Your task to perform on an android device: check android version Image 0: 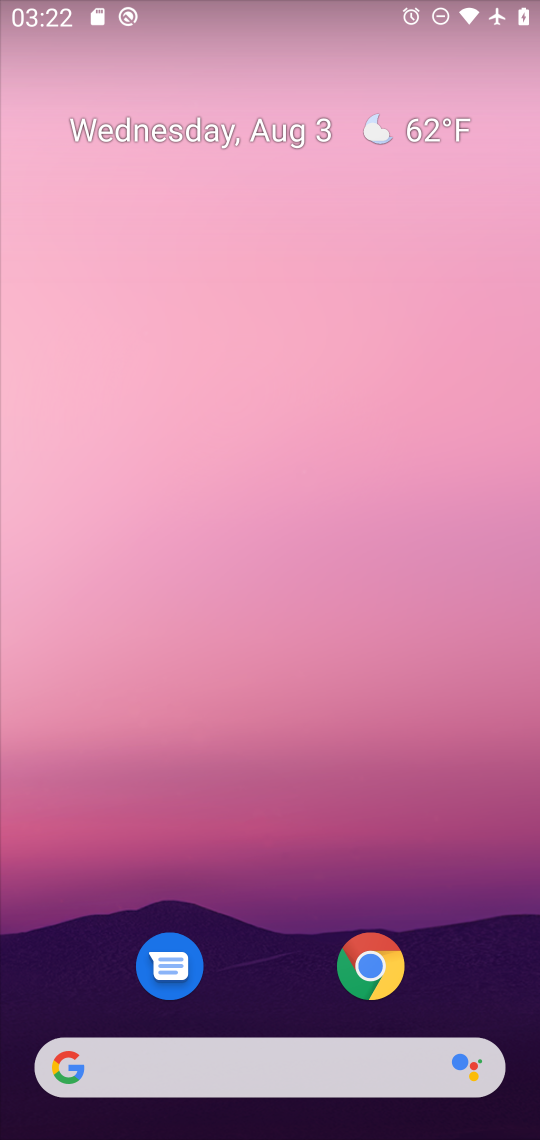
Step 0: drag from (275, 965) to (238, 384)
Your task to perform on an android device: check android version Image 1: 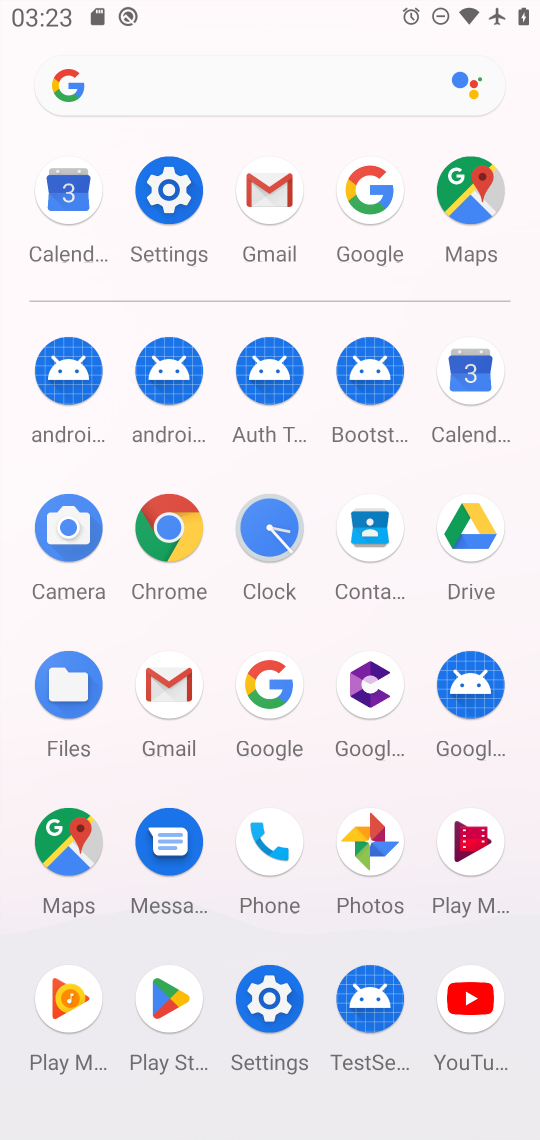
Step 1: click (188, 211)
Your task to perform on an android device: check android version Image 2: 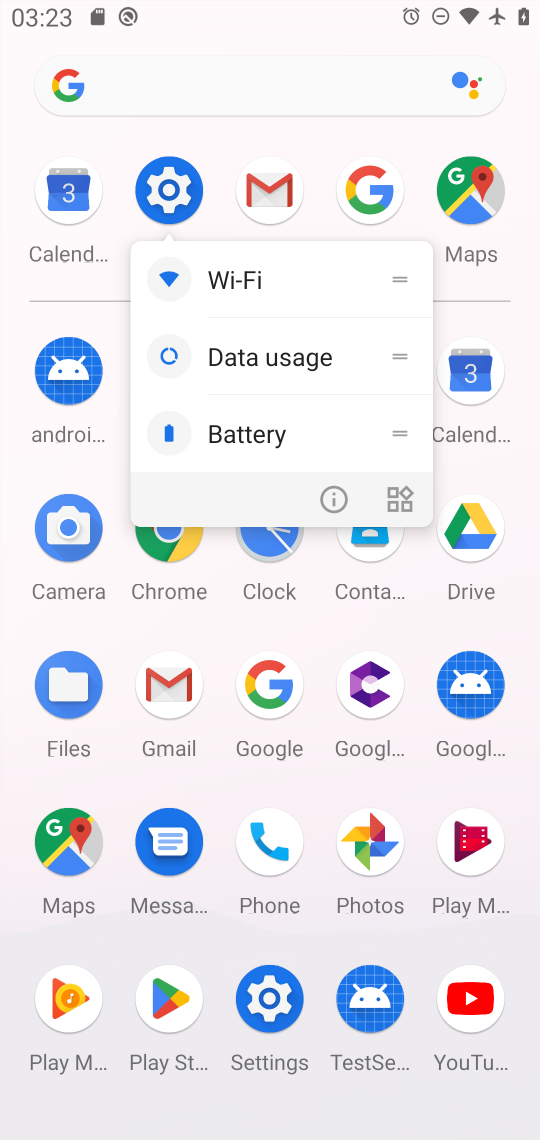
Step 2: click (188, 211)
Your task to perform on an android device: check android version Image 3: 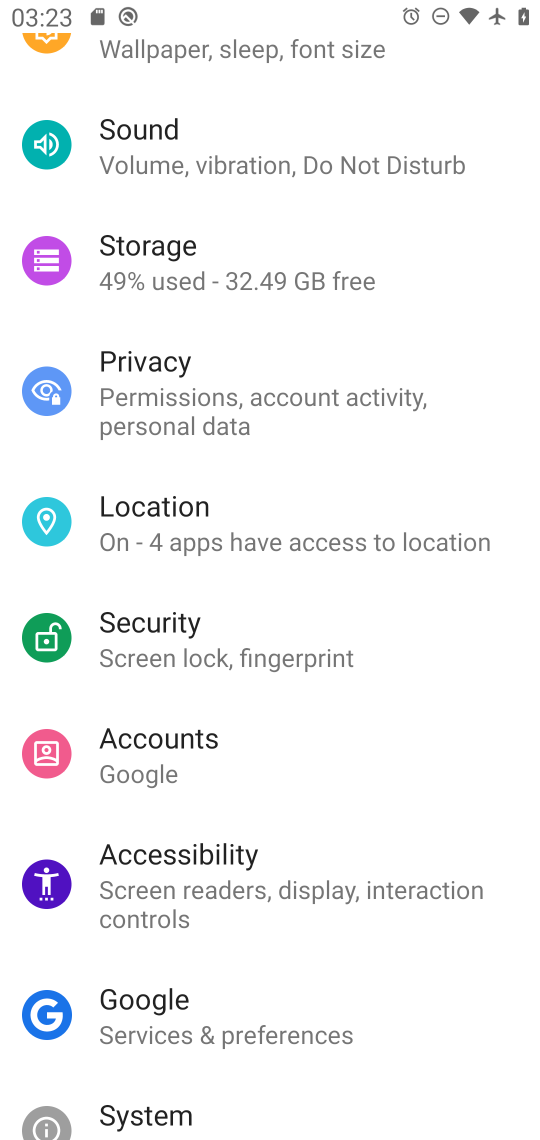
Step 3: drag from (365, 1050) to (319, 502)
Your task to perform on an android device: check android version Image 4: 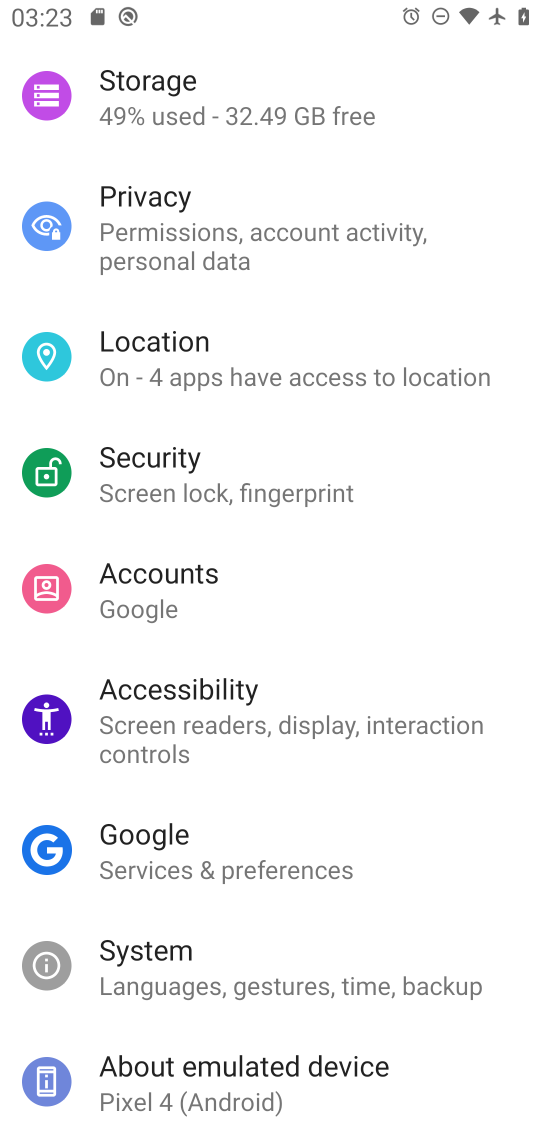
Step 4: drag from (297, 1073) to (257, 777)
Your task to perform on an android device: check android version Image 5: 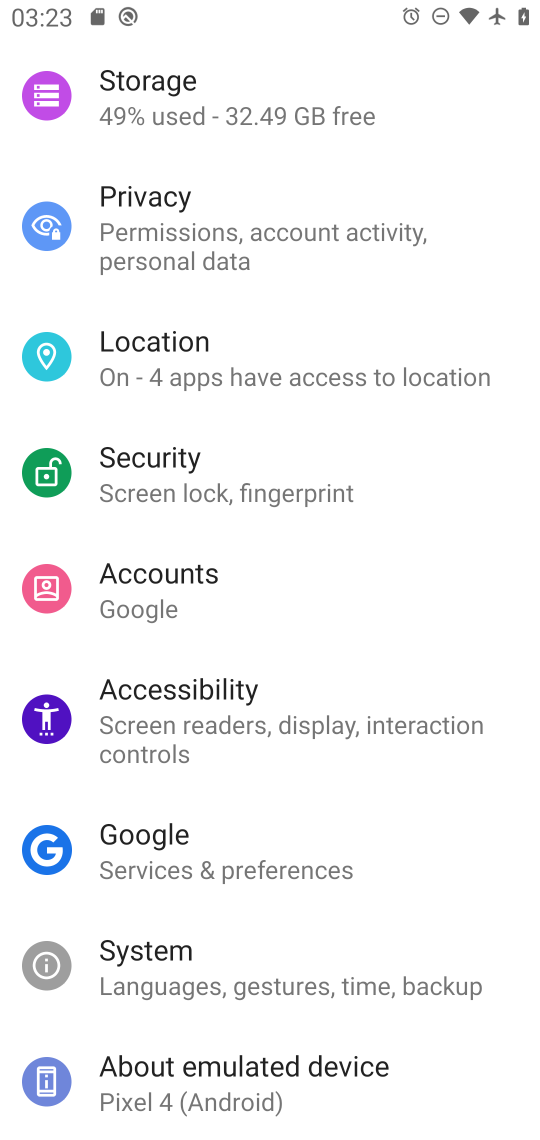
Step 5: click (231, 1074)
Your task to perform on an android device: check android version Image 6: 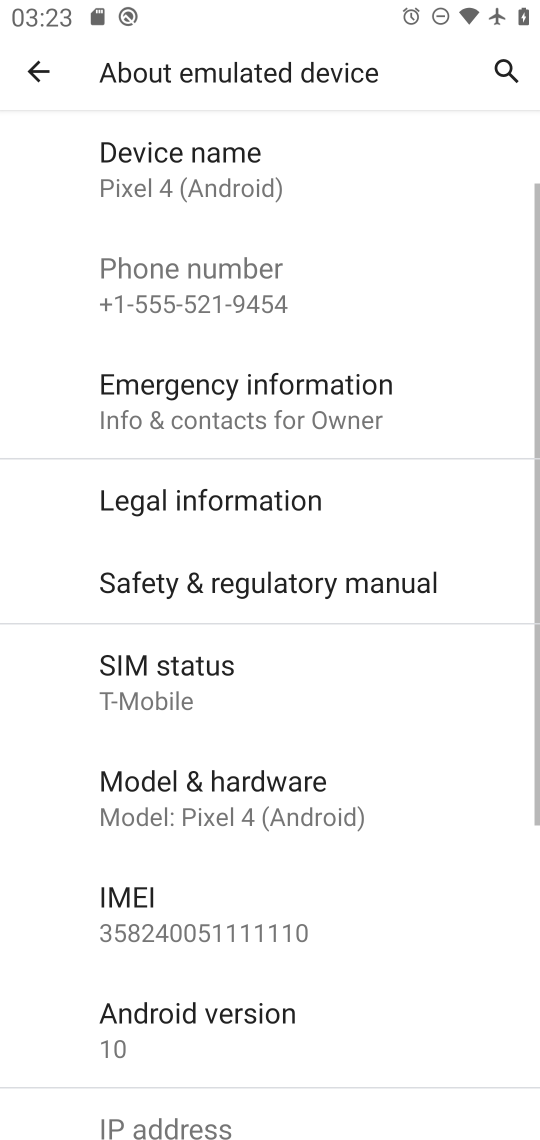
Step 6: click (258, 1024)
Your task to perform on an android device: check android version Image 7: 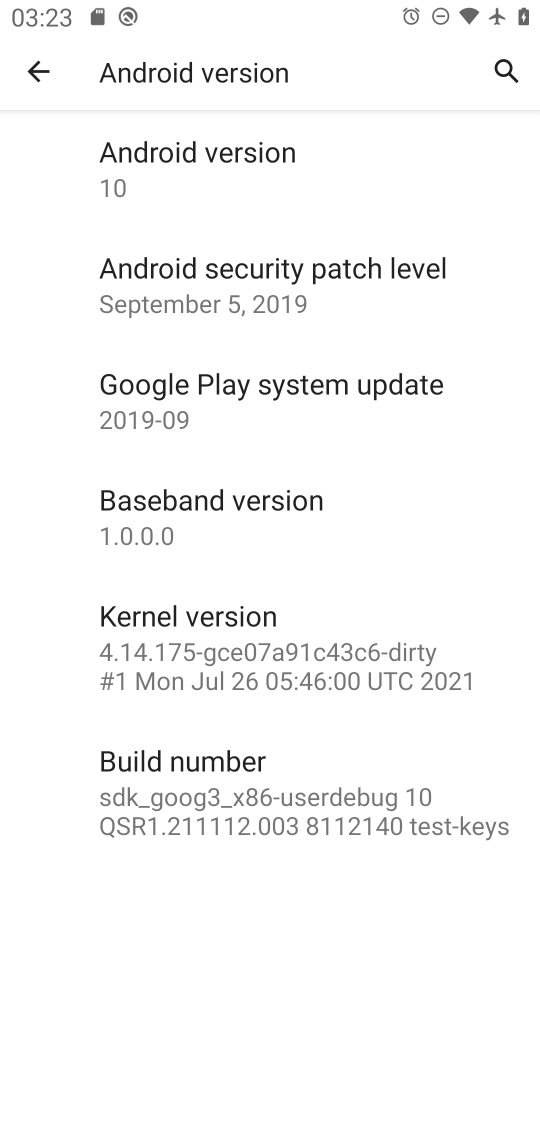
Step 7: click (197, 183)
Your task to perform on an android device: check android version Image 8: 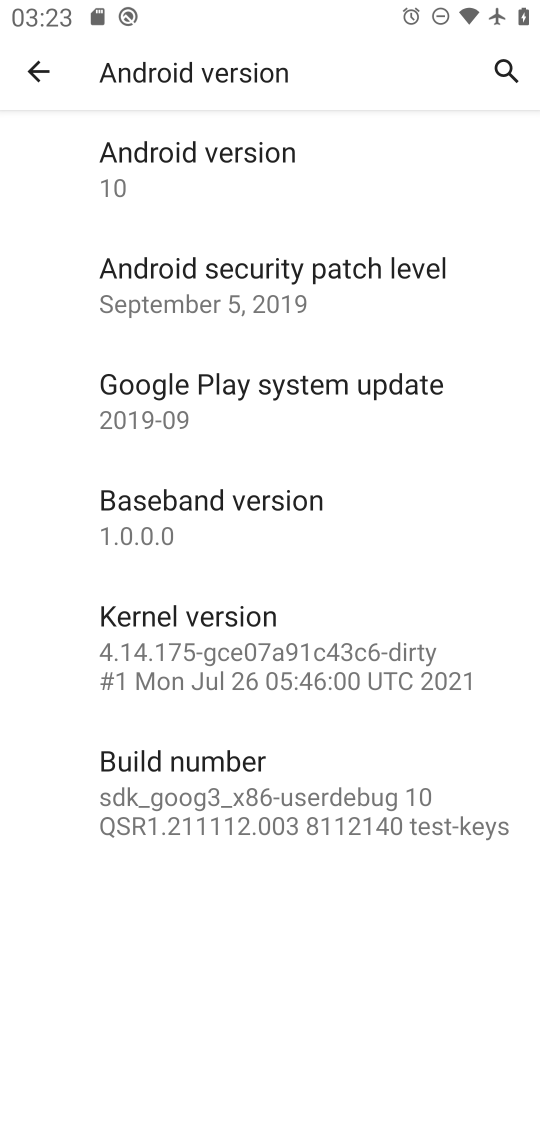
Step 8: task complete